Your task to perform on an android device: toggle improve location accuracy Image 0: 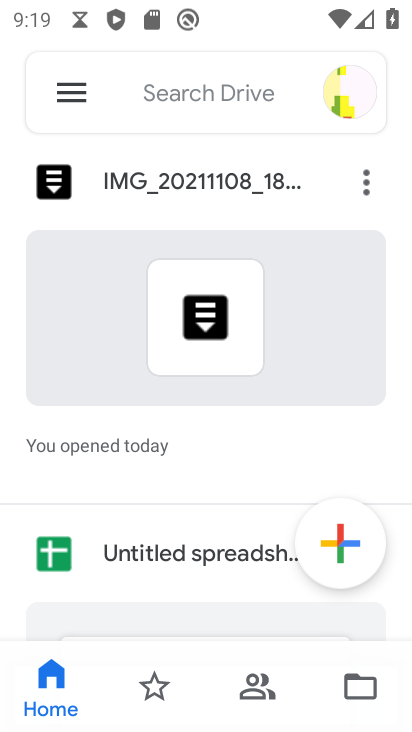
Step 0: press home button
Your task to perform on an android device: toggle improve location accuracy Image 1: 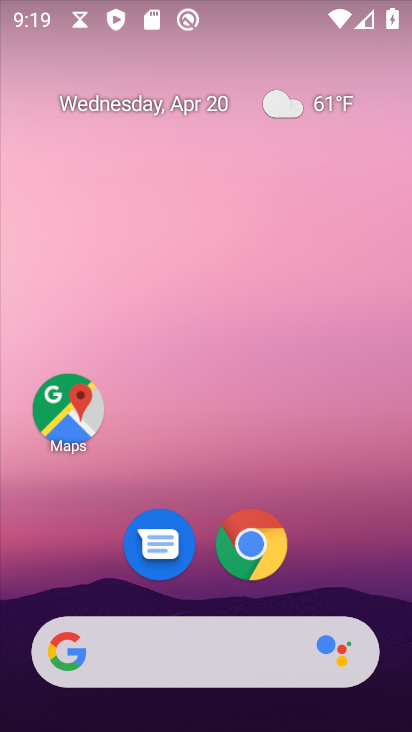
Step 1: drag from (176, 654) to (268, 57)
Your task to perform on an android device: toggle improve location accuracy Image 2: 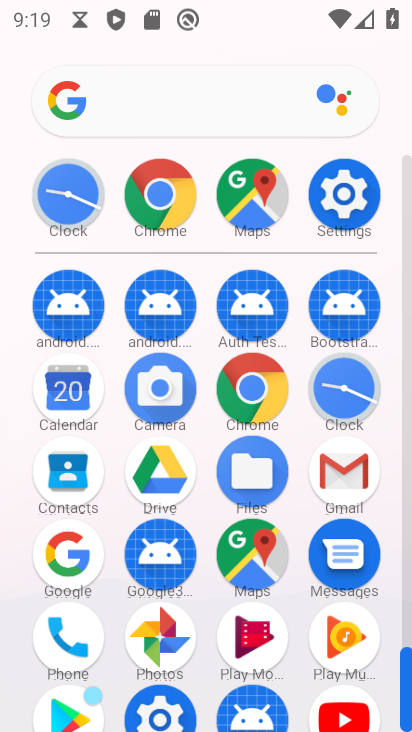
Step 2: click (347, 194)
Your task to perform on an android device: toggle improve location accuracy Image 3: 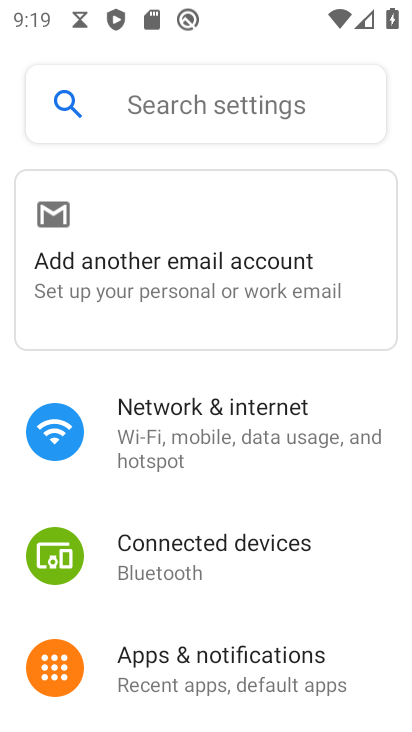
Step 3: drag from (204, 605) to (344, 242)
Your task to perform on an android device: toggle improve location accuracy Image 4: 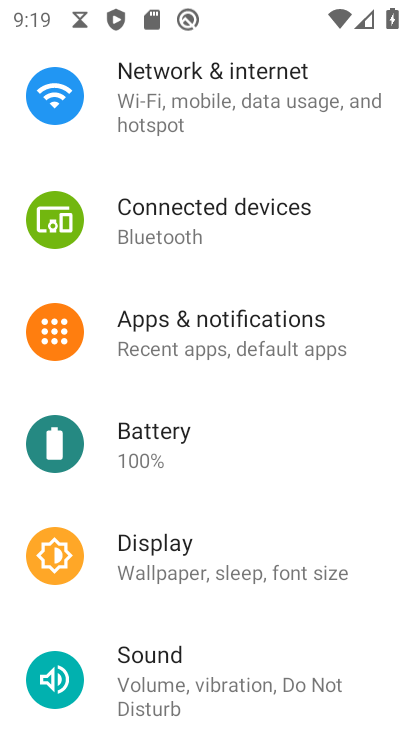
Step 4: drag from (226, 546) to (365, 137)
Your task to perform on an android device: toggle improve location accuracy Image 5: 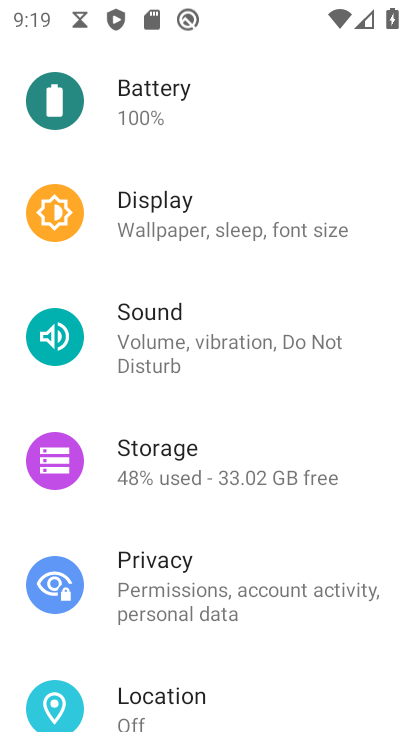
Step 5: click (166, 699)
Your task to perform on an android device: toggle improve location accuracy Image 6: 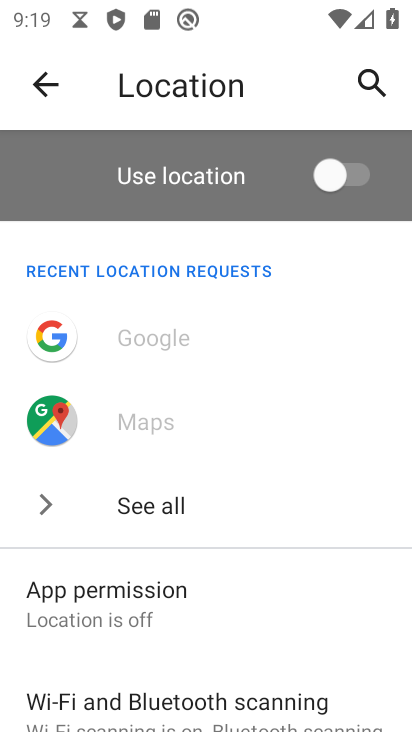
Step 6: drag from (194, 638) to (294, 111)
Your task to perform on an android device: toggle improve location accuracy Image 7: 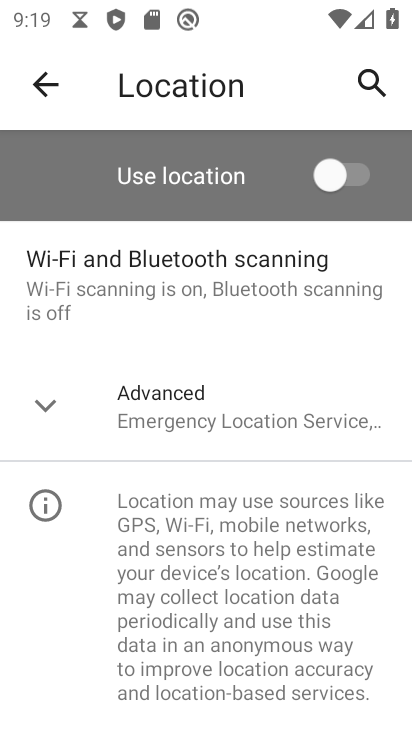
Step 7: click (129, 401)
Your task to perform on an android device: toggle improve location accuracy Image 8: 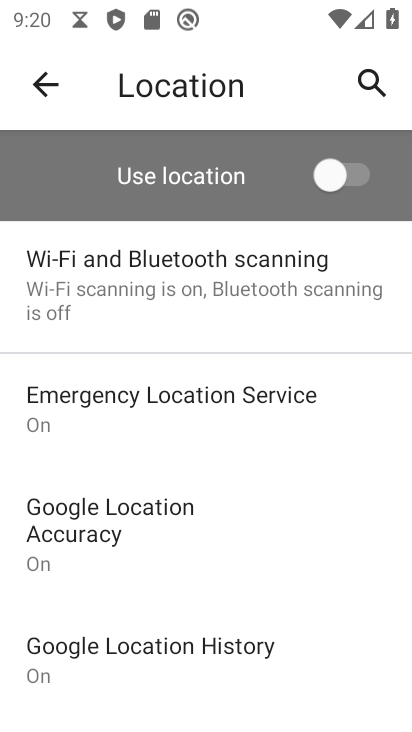
Step 8: click (128, 518)
Your task to perform on an android device: toggle improve location accuracy Image 9: 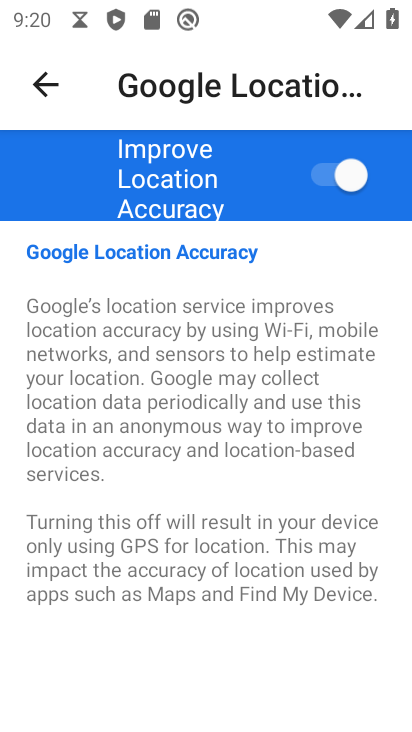
Step 9: click (327, 173)
Your task to perform on an android device: toggle improve location accuracy Image 10: 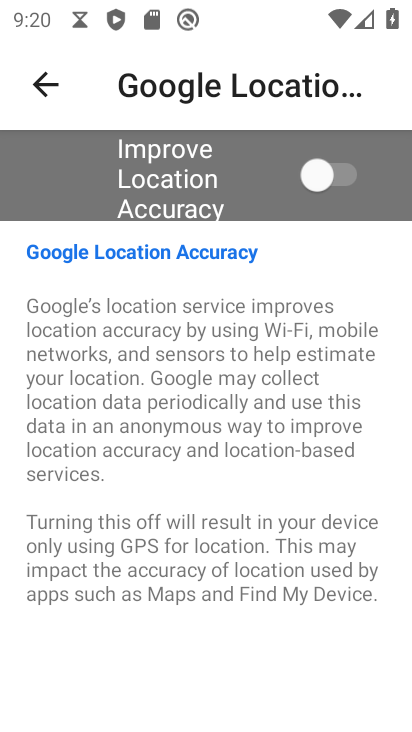
Step 10: task complete